Your task to perform on an android device: Go to Wikipedia Image 0: 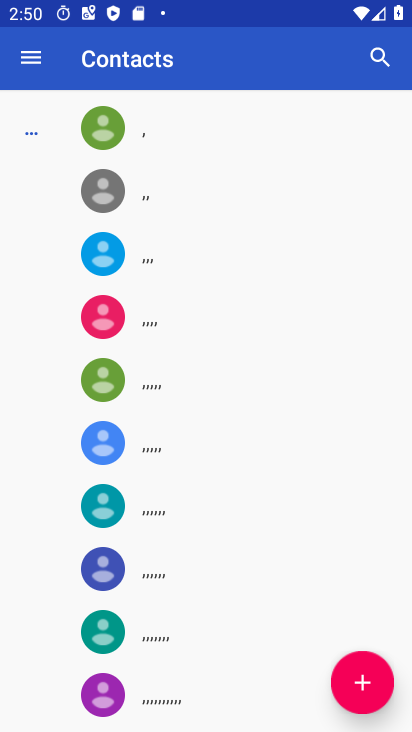
Step 0: press home button
Your task to perform on an android device: Go to Wikipedia Image 1: 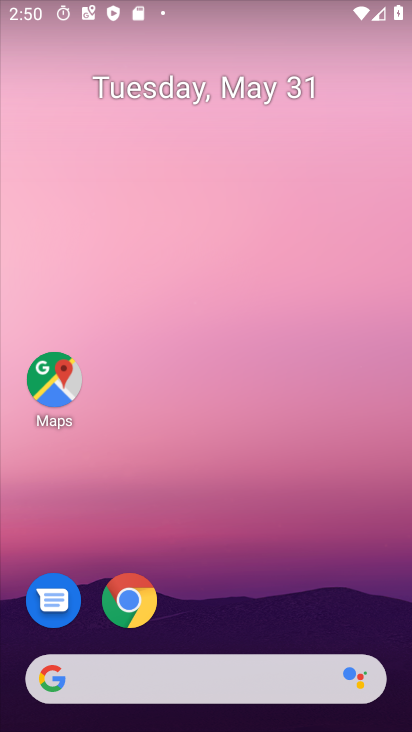
Step 1: drag from (218, 639) to (245, 132)
Your task to perform on an android device: Go to Wikipedia Image 2: 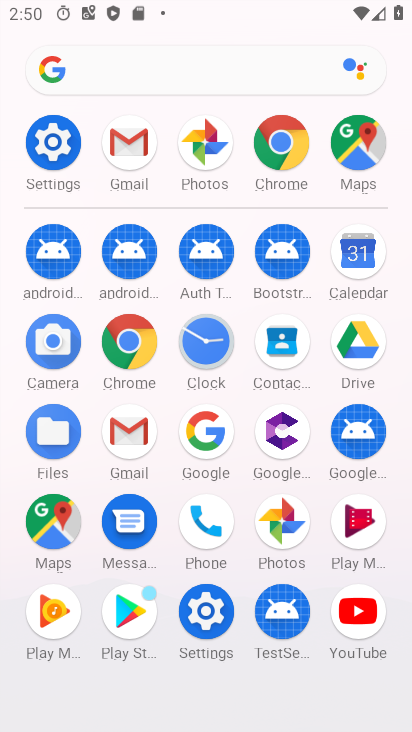
Step 2: click (275, 130)
Your task to perform on an android device: Go to Wikipedia Image 3: 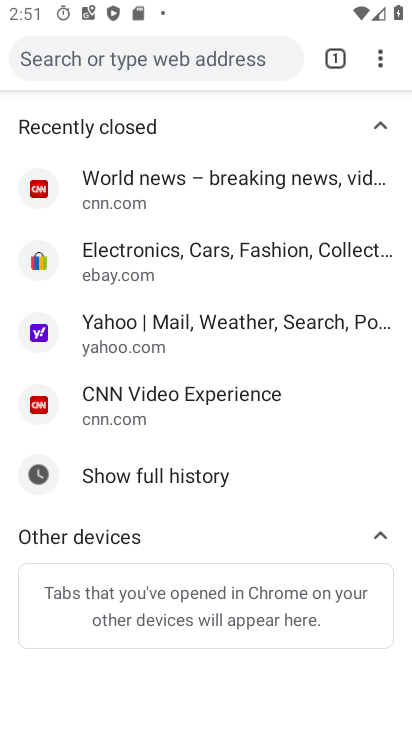
Step 3: click (332, 48)
Your task to perform on an android device: Go to Wikipedia Image 4: 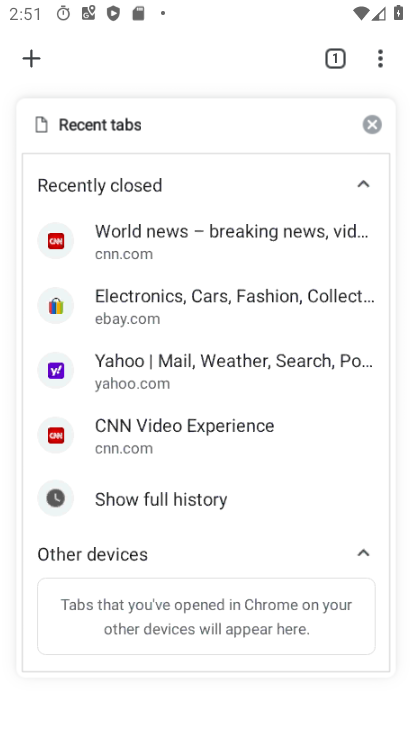
Step 4: click (369, 118)
Your task to perform on an android device: Go to Wikipedia Image 5: 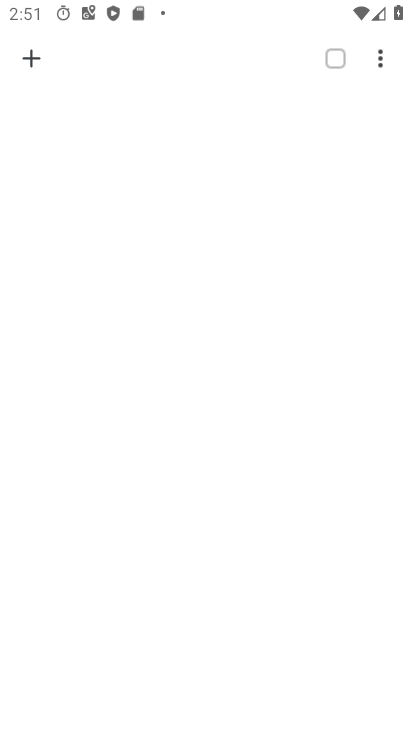
Step 5: click (37, 60)
Your task to perform on an android device: Go to Wikipedia Image 6: 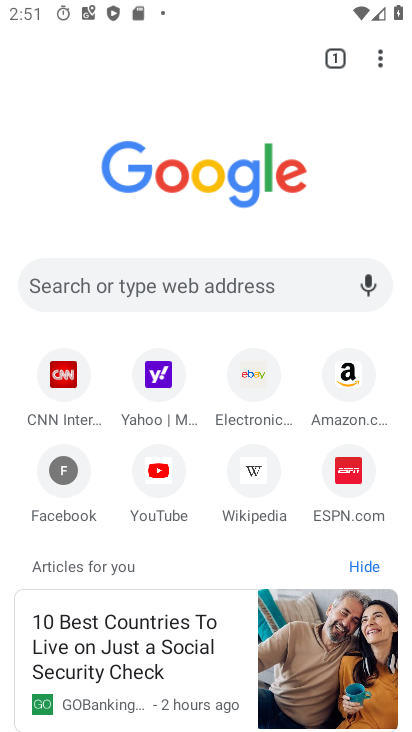
Step 6: click (251, 464)
Your task to perform on an android device: Go to Wikipedia Image 7: 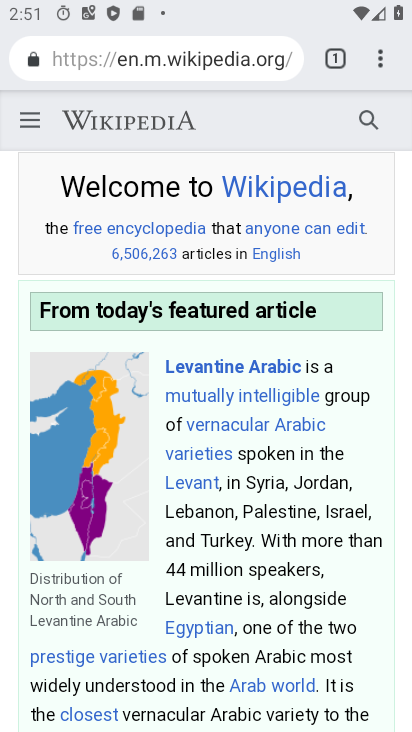
Step 7: task complete